Your task to perform on an android device: turn off smart reply in the gmail app Image 0: 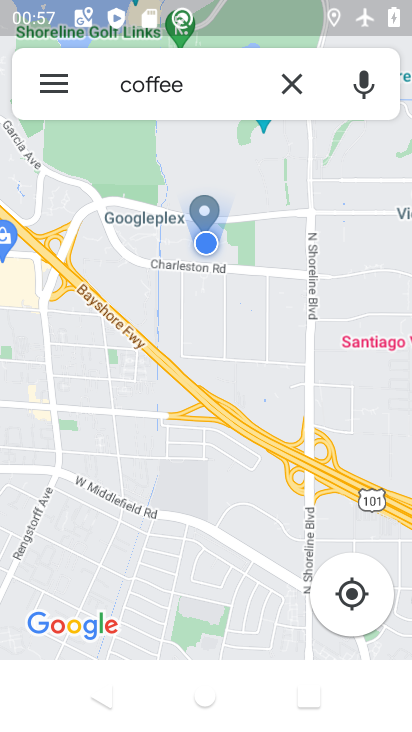
Step 0: press home button
Your task to perform on an android device: turn off smart reply in the gmail app Image 1: 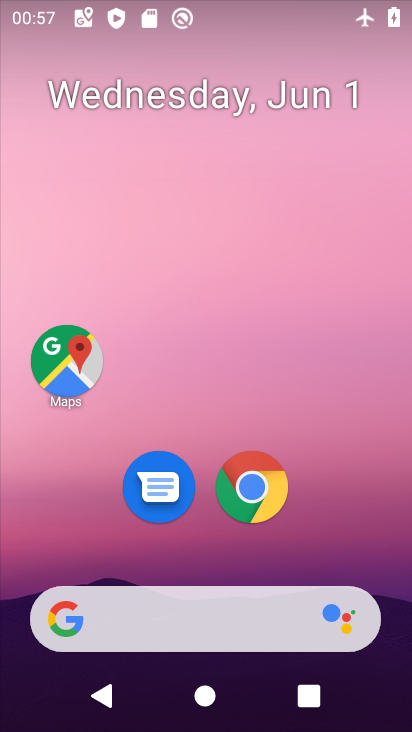
Step 1: drag from (364, 535) to (397, 273)
Your task to perform on an android device: turn off smart reply in the gmail app Image 2: 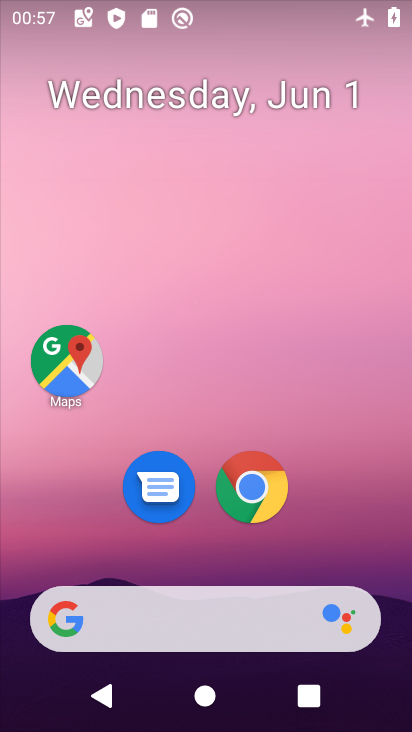
Step 2: drag from (260, 596) to (247, 272)
Your task to perform on an android device: turn off smart reply in the gmail app Image 3: 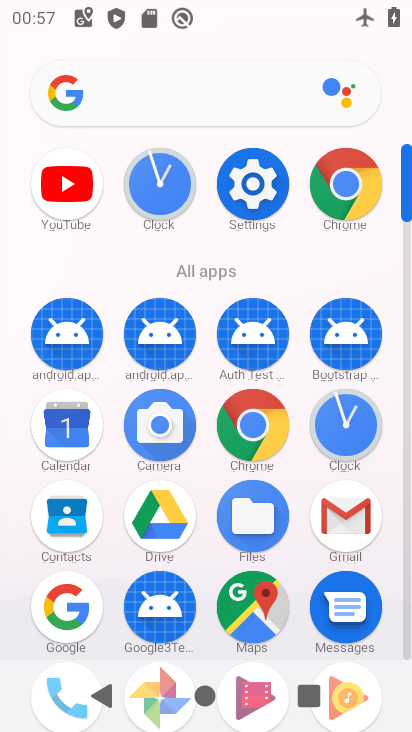
Step 3: click (339, 507)
Your task to perform on an android device: turn off smart reply in the gmail app Image 4: 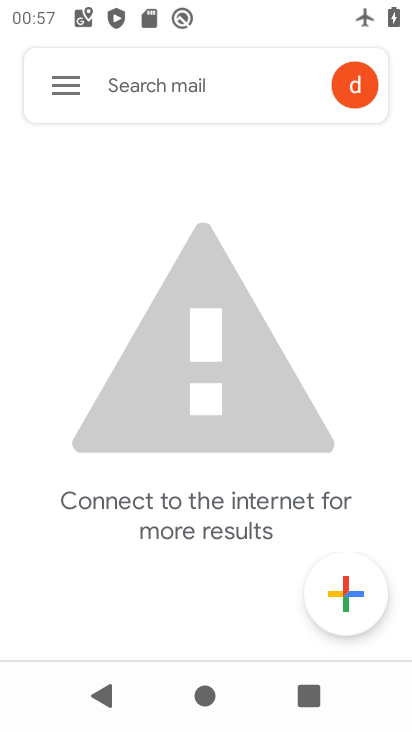
Step 4: click (58, 82)
Your task to perform on an android device: turn off smart reply in the gmail app Image 5: 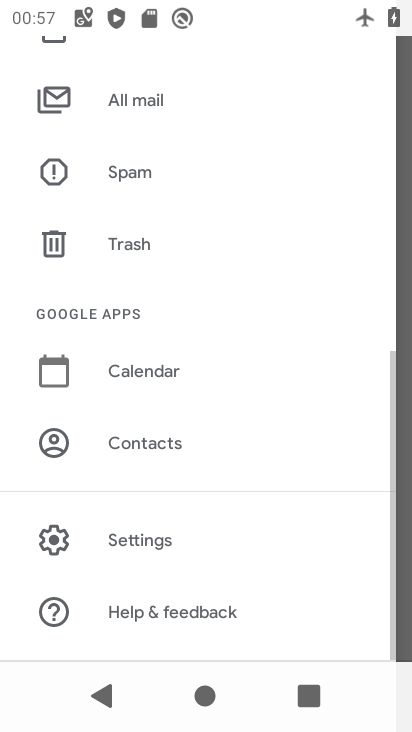
Step 5: click (154, 545)
Your task to perform on an android device: turn off smart reply in the gmail app Image 6: 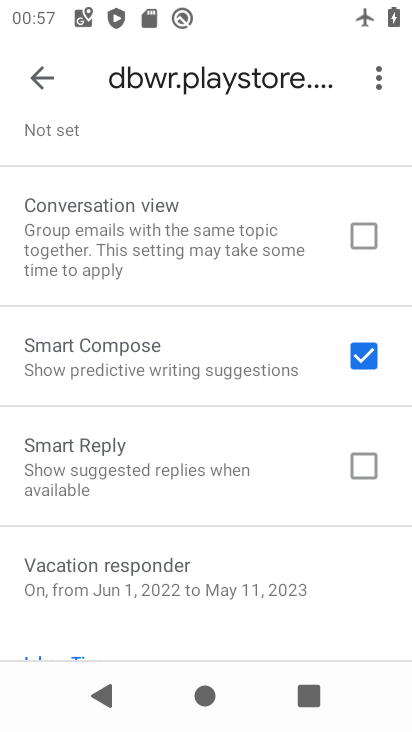
Step 6: task complete